Your task to perform on an android device: remove spam from my inbox in the gmail app Image 0: 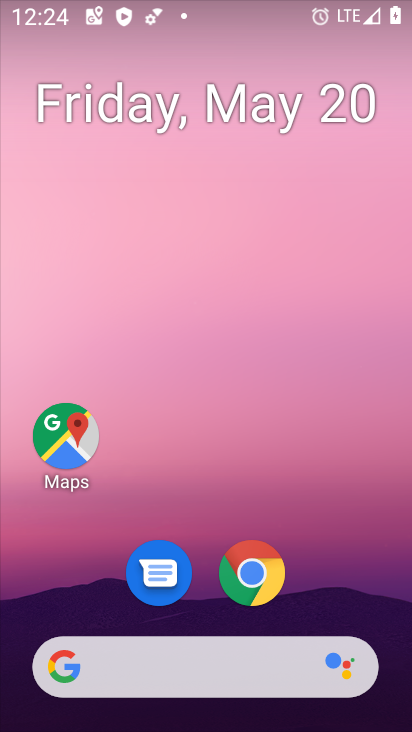
Step 0: drag from (202, 600) to (260, 159)
Your task to perform on an android device: remove spam from my inbox in the gmail app Image 1: 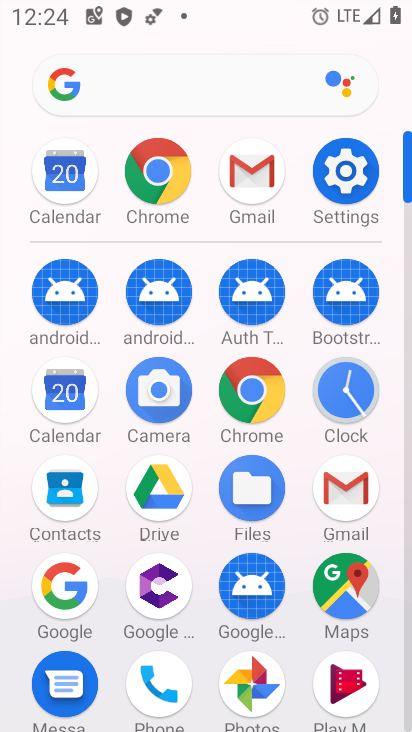
Step 1: click (241, 167)
Your task to perform on an android device: remove spam from my inbox in the gmail app Image 2: 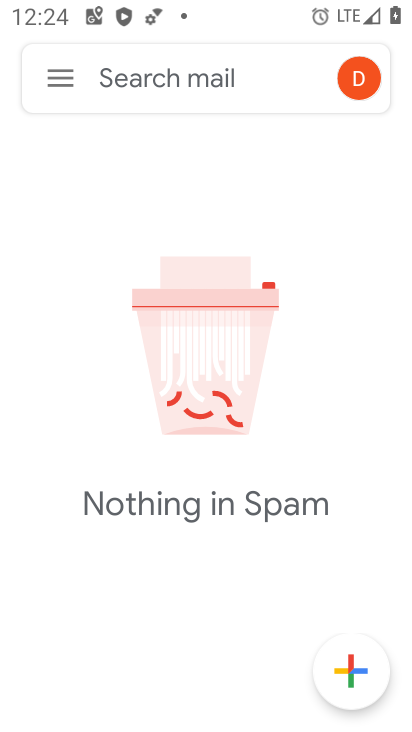
Step 2: click (65, 72)
Your task to perform on an android device: remove spam from my inbox in the gmail app Image 3: 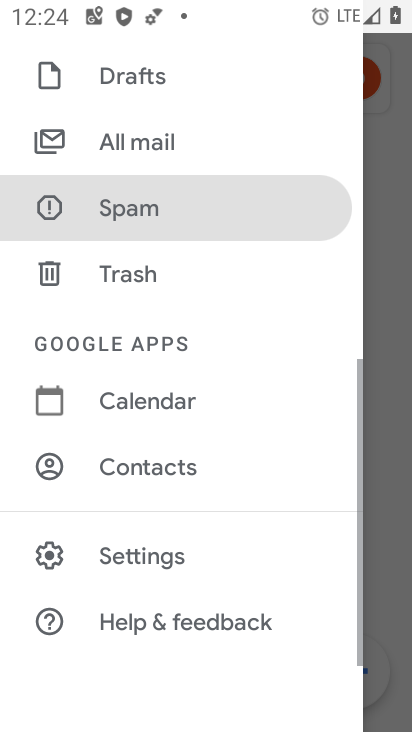
Step 3: task complete